Your task to perform on an android device: find photos in the google photos app Image 0: 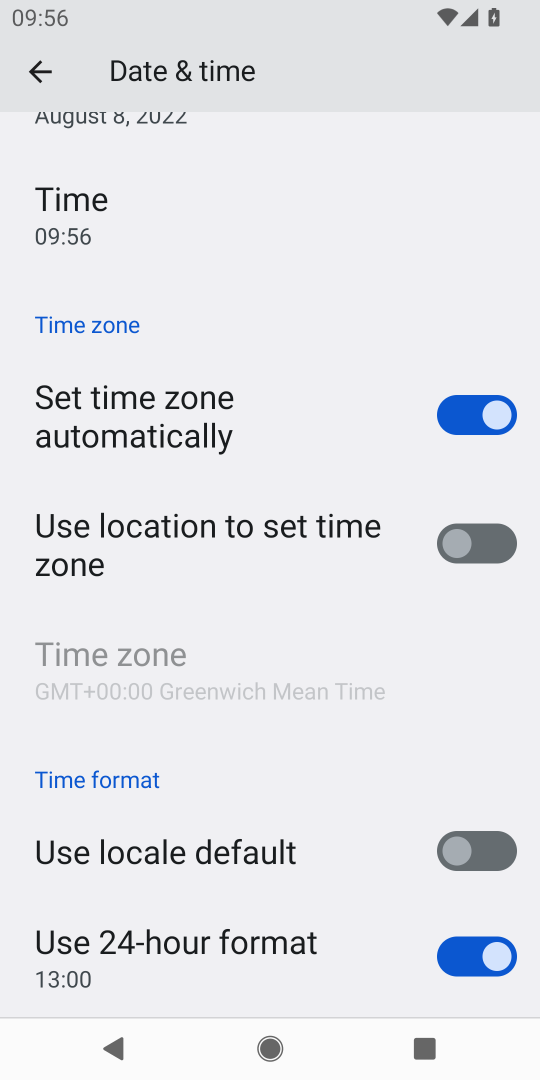
Step 0: press home button
Your task to perform on an android device: find photos in the google photos app Image 1: 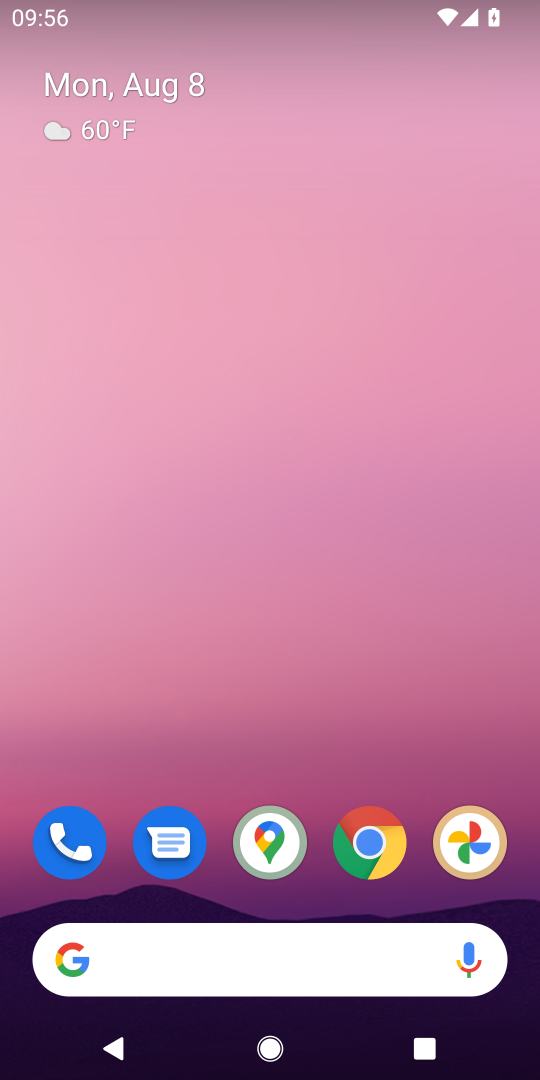
Step 1: click (439, 829)
Your task to perform on an android device: find photos in the google photos app Image 2: 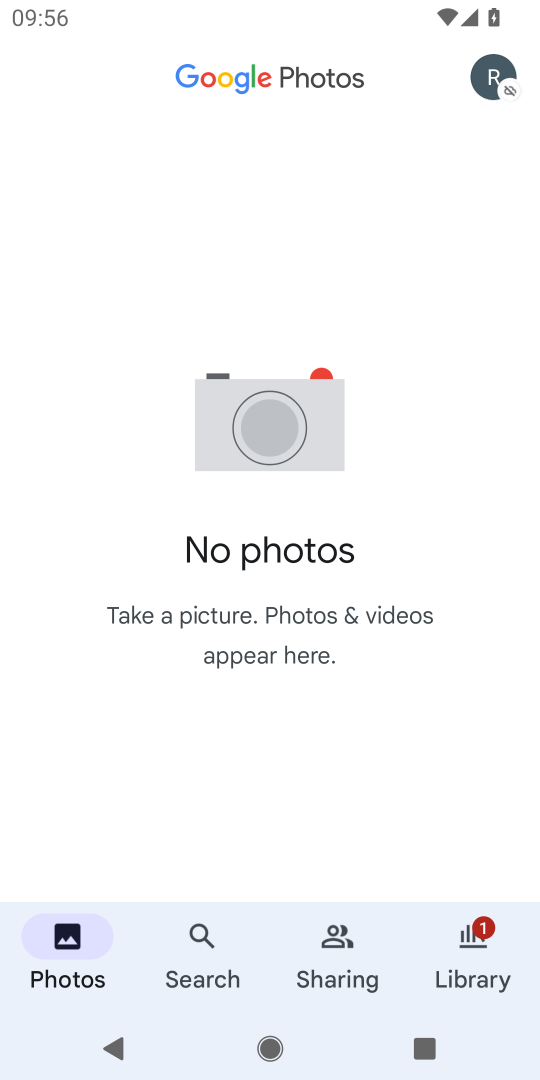
Step 2: task complete